Your task to perform on an android device: turn on javascript in the chrome app Image 0: 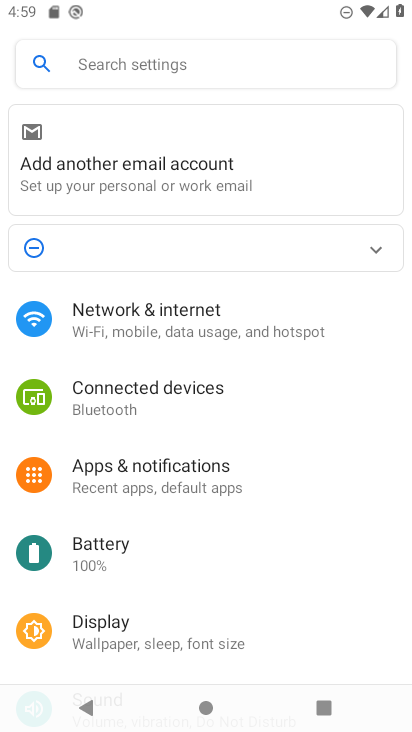
Step 0: press back button
Your task to perform on an android device: turn on javascript in the chrome app Image 1: 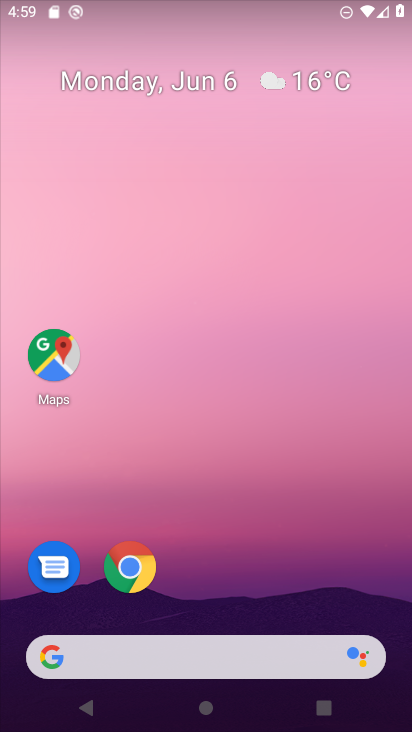
Step 1: drag from (148, 303) to (141, 240)
Your task to perform on an android device: turn on javascript in the chrome app Image 2: 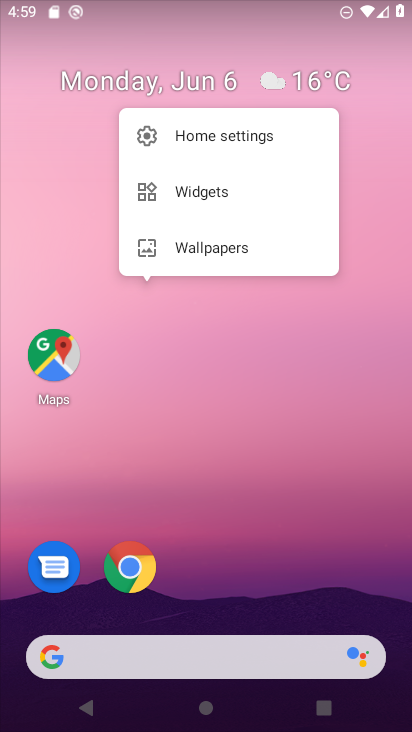
Step 2: click (154, 91)
Your task to perform on an android device: turn on javascript in the chrome app Image 3: 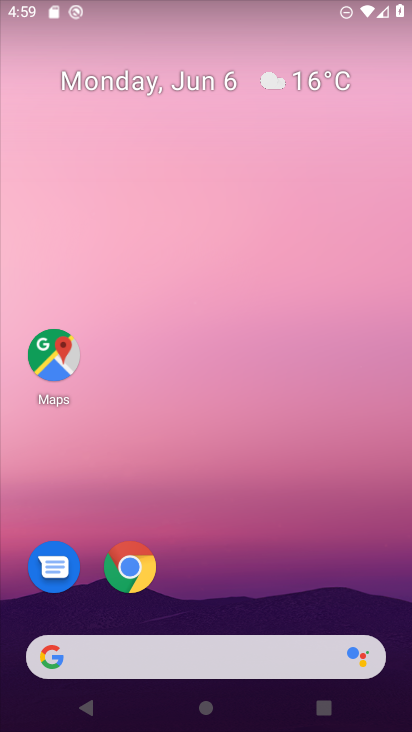
Step 3: click (184, 239)
Your task to perform on an android device: turn on javascript in the chrome app Image 4: 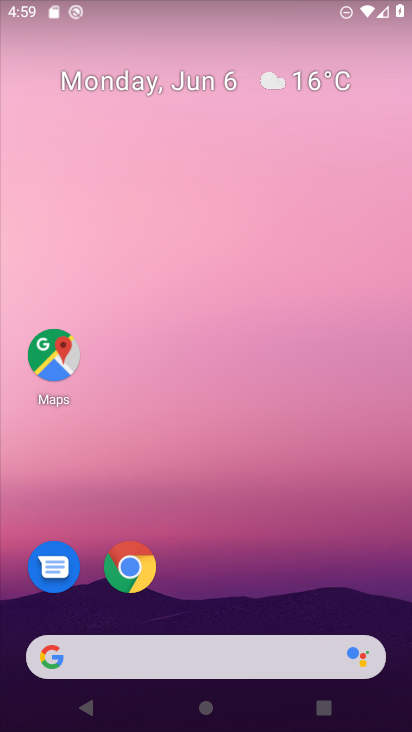
Step 4: drag from (279, 398) to (123, 5)
Your task to perform on an android device: turn on javascript in the chrome app Image 5: 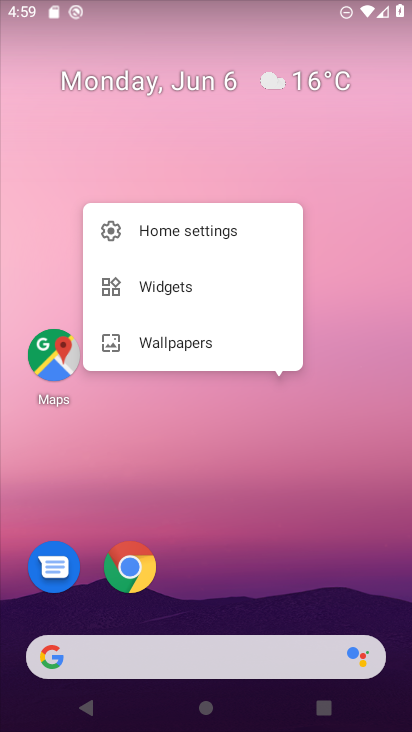
Step 5: drag from (109, 23) to (16, 10)
Your task to perform on an android device: turn on javascript in the chrome app Image 6: 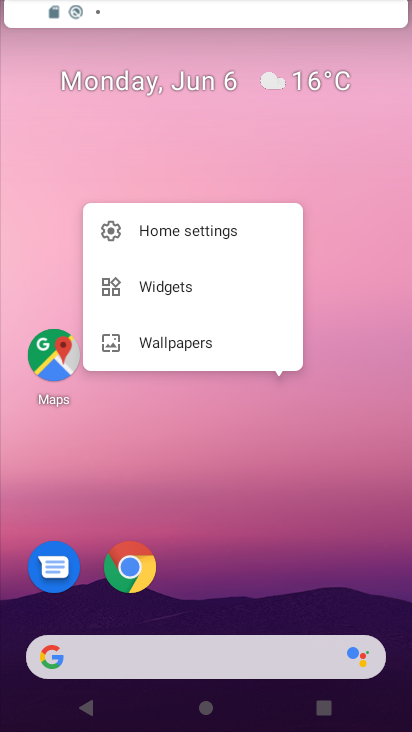
Step 6: drag from (218, 569) to (143, 57)
Your task to perform on an android device: turn on javascript in the chrome app Image 7: 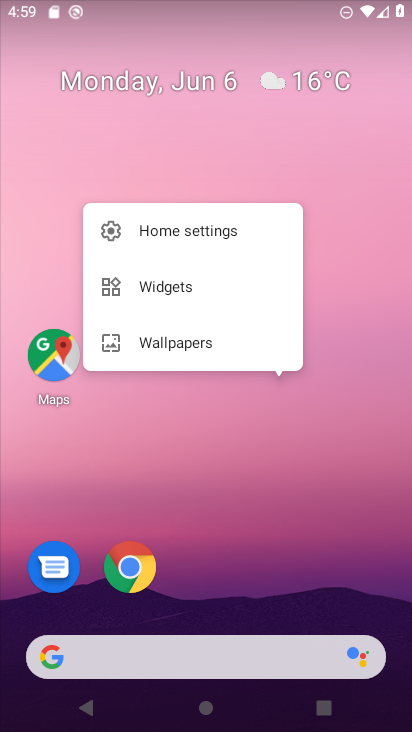
Step 7: drag from (190, 436) to (85, 77)
Your task to perform on an android device: turn on javascript in the chrome app Image 8: 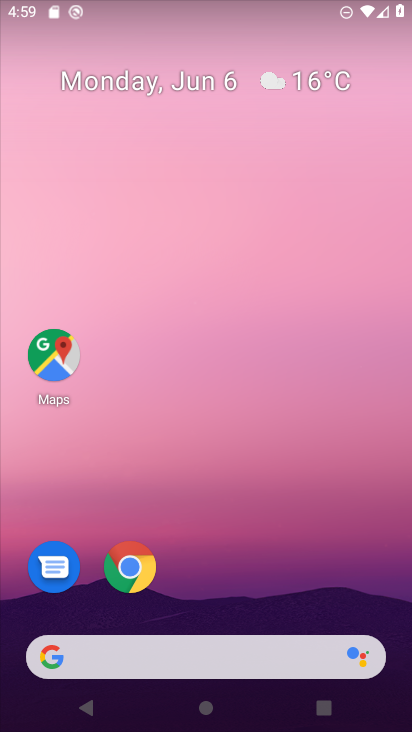
Step 8: drag from (156, 520) to (60, 69)
Your task to perform on an android device: turn on javascript in the chrome app Image 9: 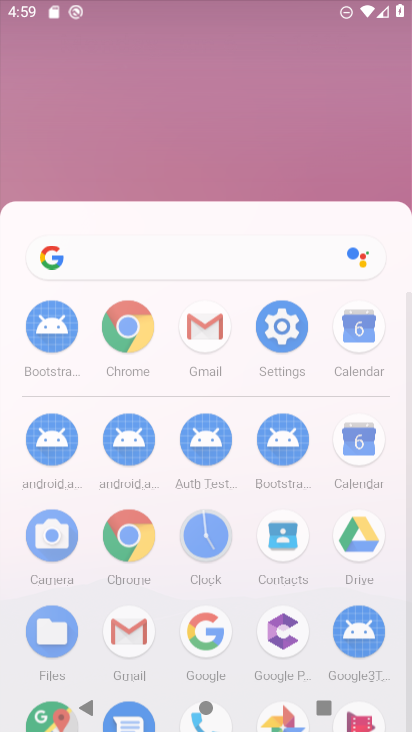
Step 9: drag from (152, 381) to (43, 117)
Your task to perform on an android device: turn on javascript in the chrome app Image 10: 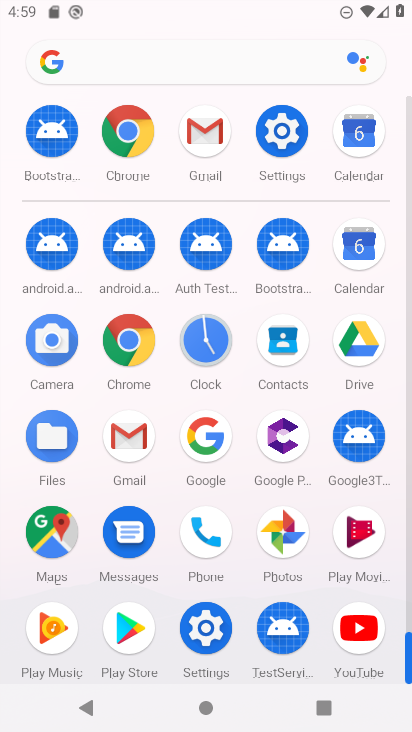
Step 10: click (138, 136)
Your task to perform on an android device: turn on javascript in the chrome app Image 11: 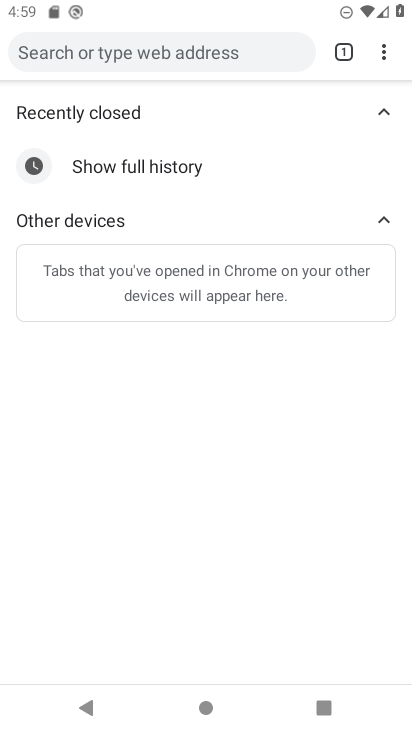
Step 11: drag from (369, 47) to (177, 449)
Your task to perform on an android device: turn on javascript in the chrome app Image 12: 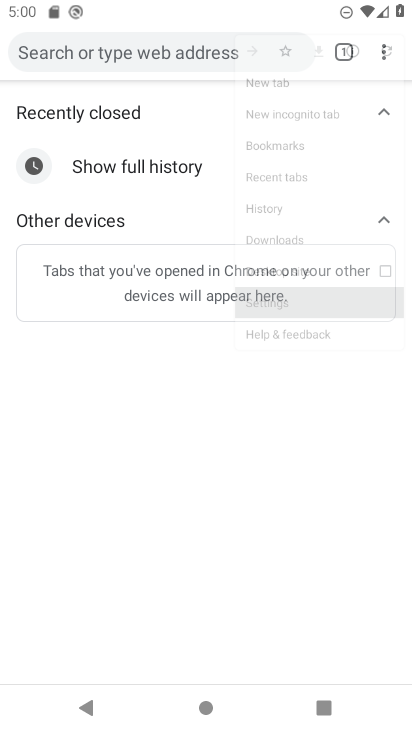
Step 12: click (177, 449)
Your task to perform on an android device: turn on javascript in the chrome app Image 13: 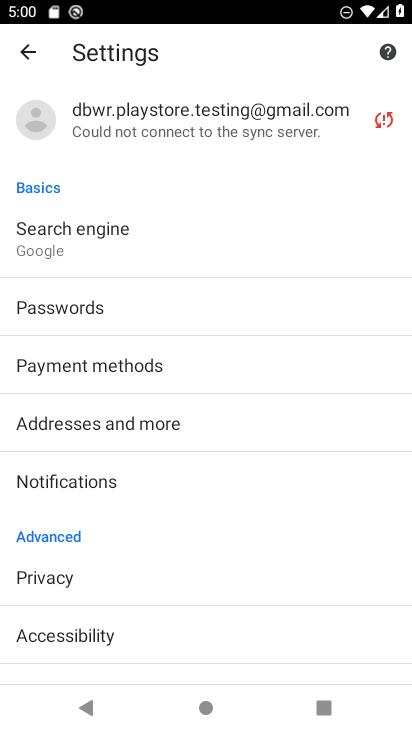
Step 13: drag from (83, 571) to (56, 224)
Your task to perform on an android device: turn on javascript in the chrome app Image 14: 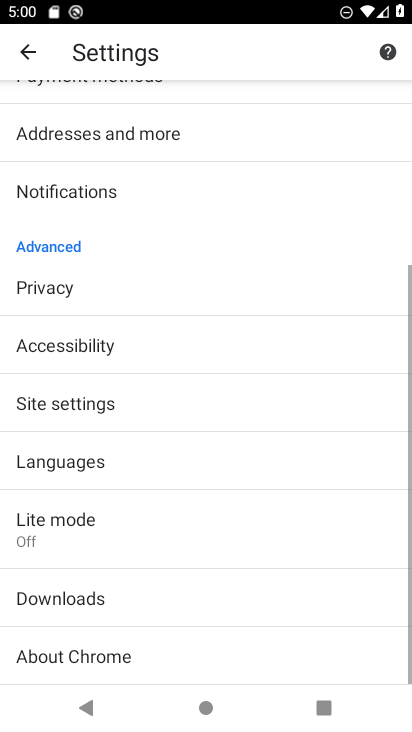
Step 14: drag from (113, 442) to (97, 173)
Your task to perform on an android device: turn on javascript in the chrome app Image 15: 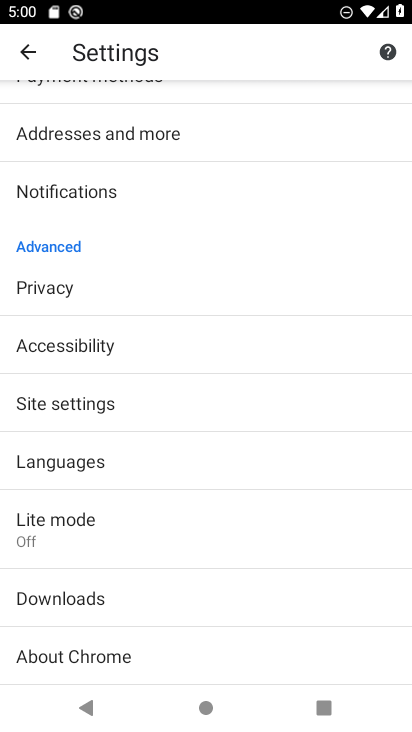
Step 15: click (59, 403)
Your task to perform on an android device: turn on javascript in the chrome app Image 16: 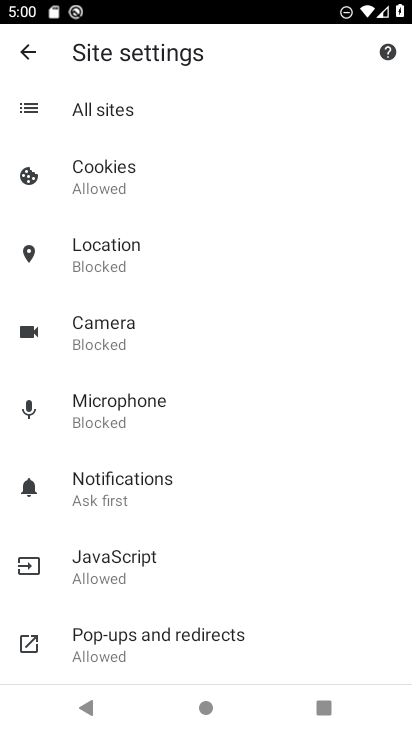
Step 16: click (123, 552)
Your task to perform on an android device: turn on javascript in the chrome app Image 17: 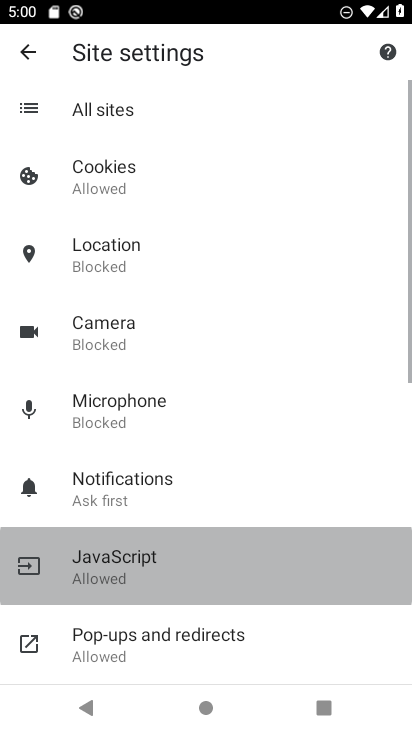
Step 17: click (120, 552)
Your task to perform on an android device: turn on javascript in the chrome app Image 18: 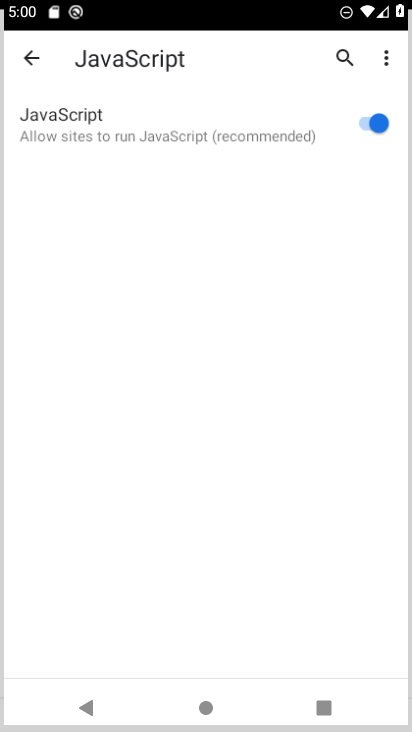
Step 18: click (118, 551)
Your task to perform on an android device: turn on javascript in the chrome app Image 19: 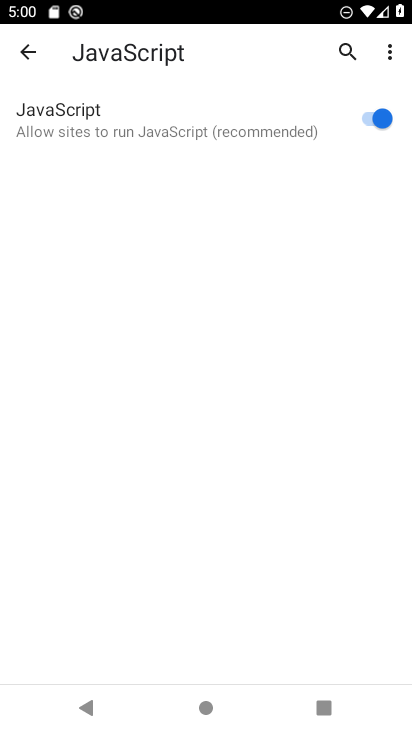
Step 19: task complete